Your task to perform on an android device: Go to ESPN.com Image 0: 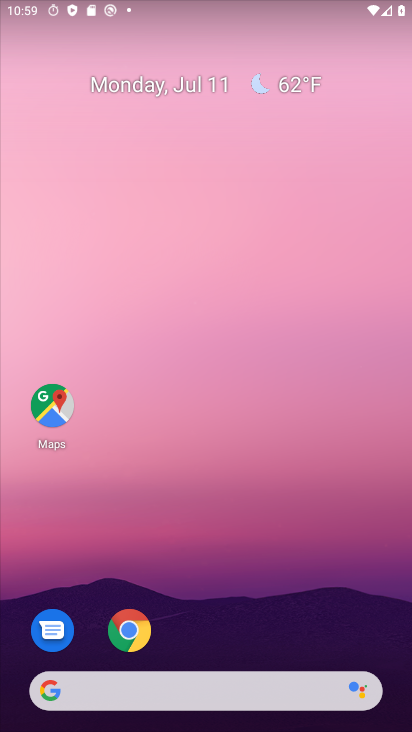
Step 0: drag from (340, 681) to (357, 2)
Your task to perform on an android device: Go to ESPN.com Image 1: 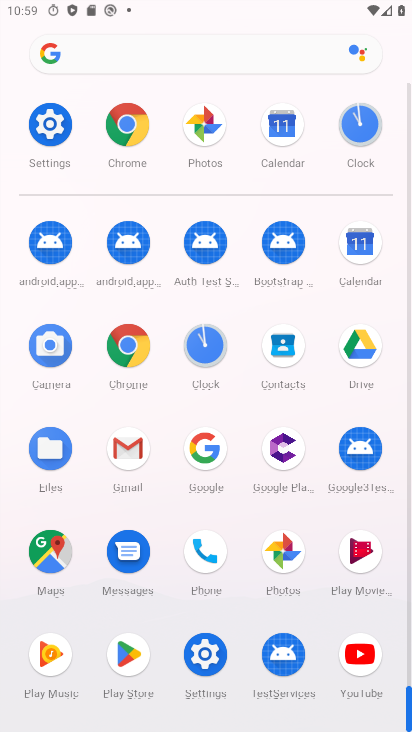
Step 1: click (139, 341)
Your task to perform on an android device: Go to ESPN.com Image 2: 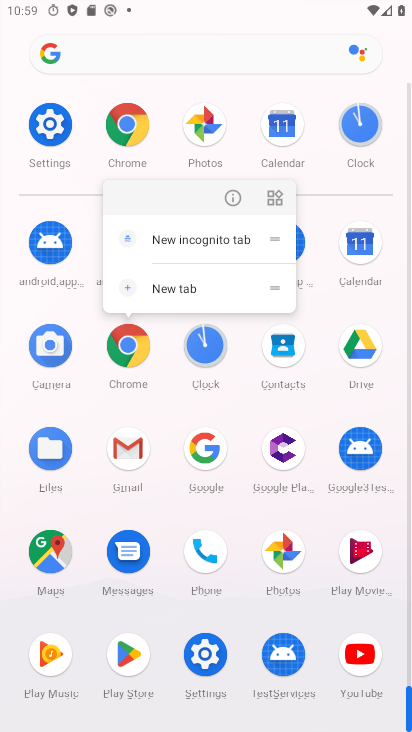
Step 2: click (137, 341)
Your task to perform on an android device: Go to ESPN.com Image 3: 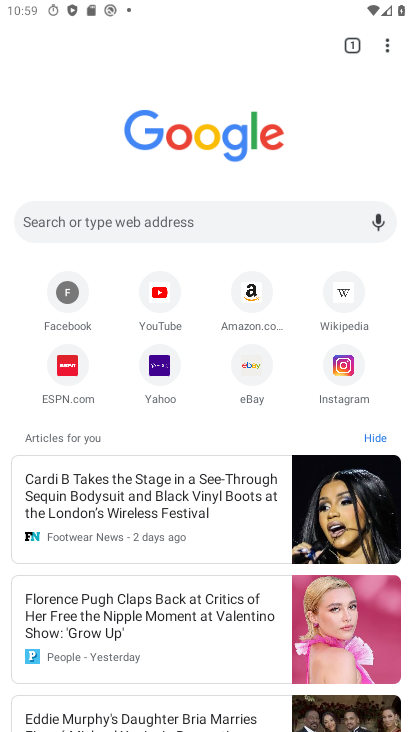
Step 3: click (64, 362)
Your task to perform on an android device: Go to ESPN.com Image 4: 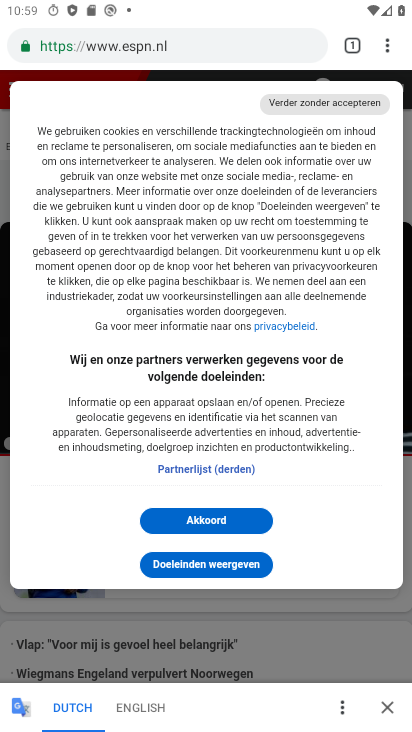
Step 4: task complete